Your task to perform on an android device: check android version Image 0: 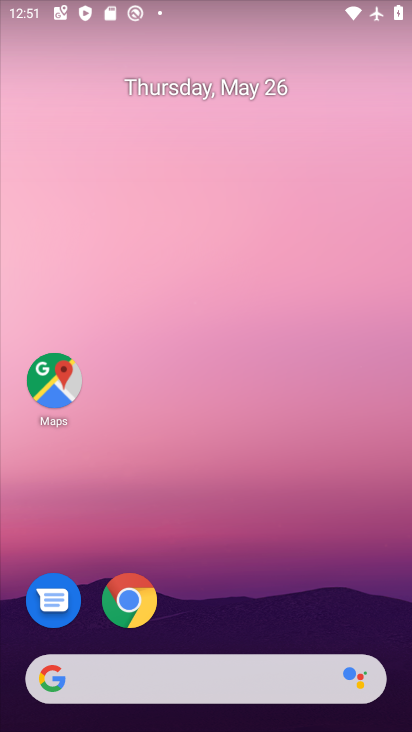
Step 0: drag from (325, 586) to (290, 103)
Your task to perform on an android device: check android version Image 1: 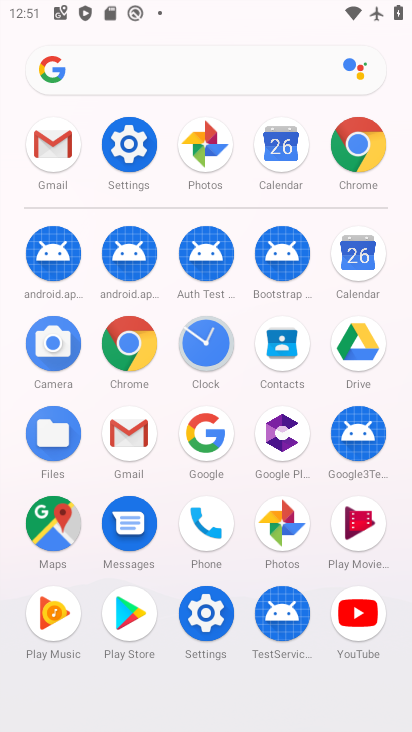
Step 1: click (122, 122)
Your task to perform on an android device: check android version Image 2: 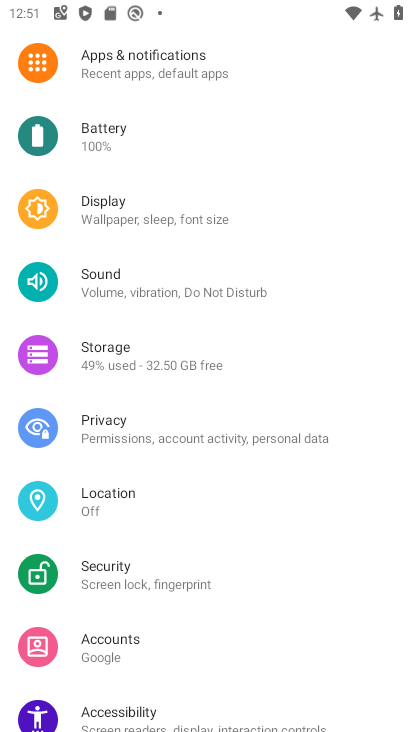
Step 2: drag from (218, 680) to (220, 79)
Your task to perform on an android device: check android version Image 3: 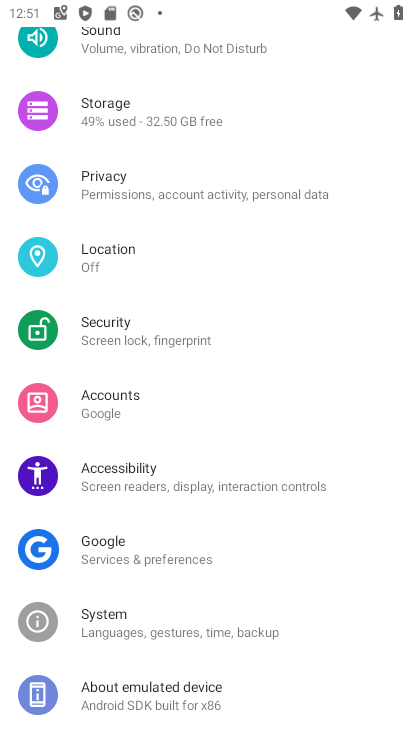
Step 3: click (180, 712)
Your task to perform on an android device: check android version Image 4: 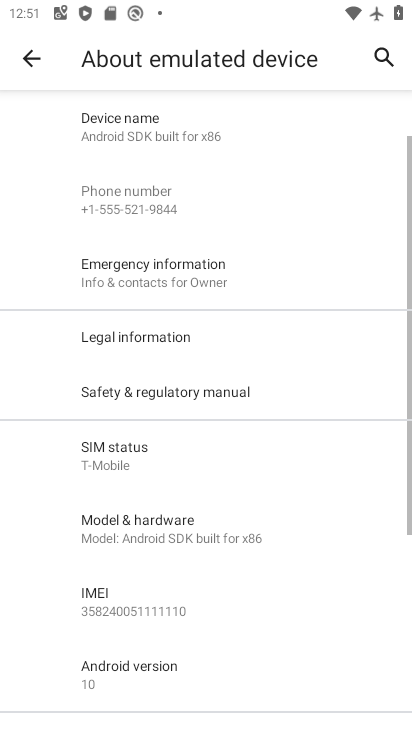
Step 4: click (136, 677)
Your task to perform on an android device: check android version Image 5: 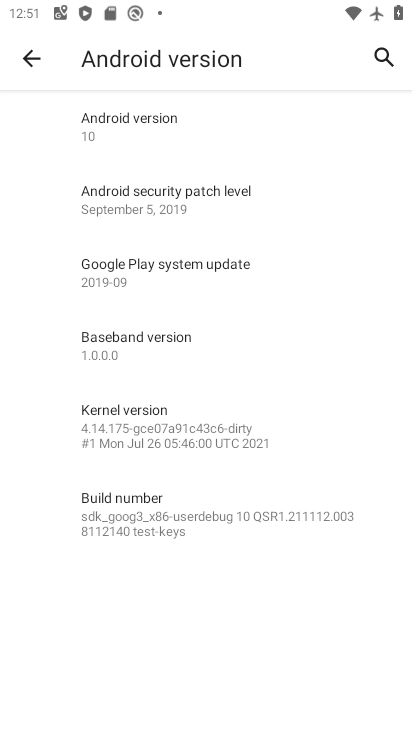
Step 5: click (196, 140)
Your task to perform on an android device: check android version Image 6: 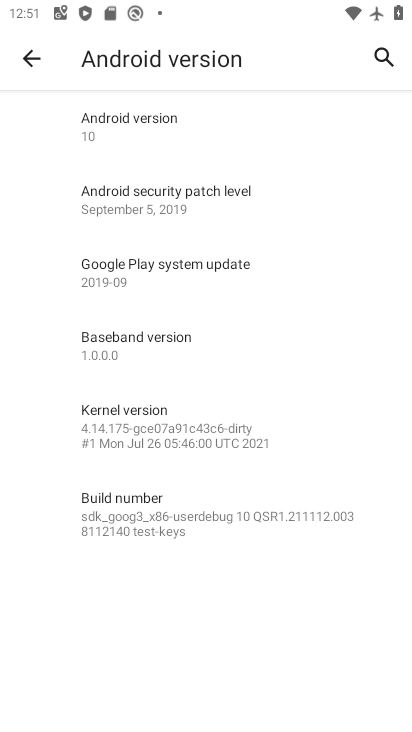
Step 6: task complete